Your task to perform on an android device: Open maps Image 0: 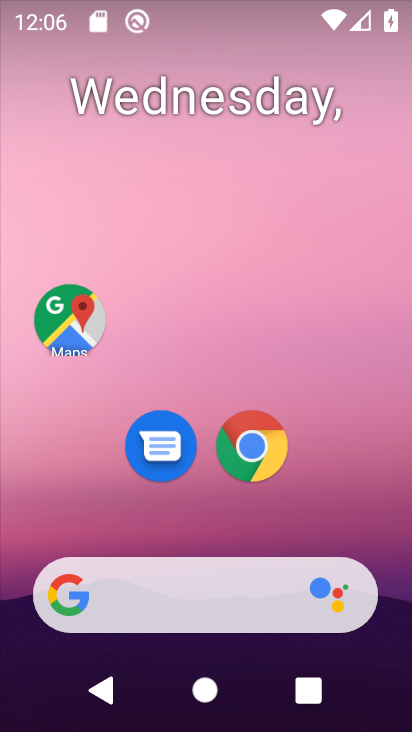
Step 0: click (65, 323)
Your task to perform on an android device: Open maps Image 1: 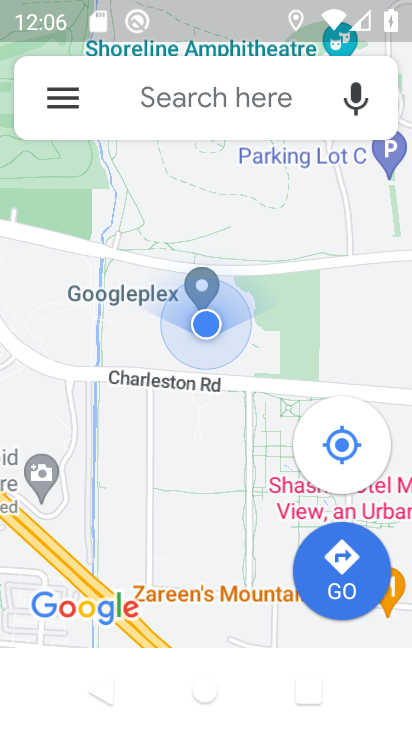
Step 1: task complete